Your task to perform on an android device: toggle notifications settings in the gmail app Image 0: 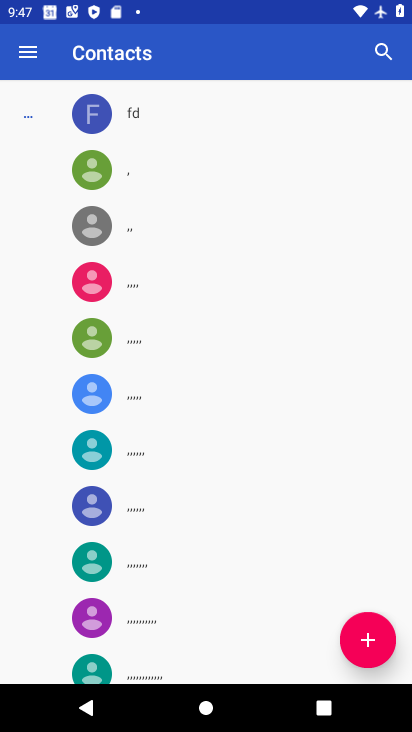
Step 0: press home button
Your task to perform on an android device: toggle notifications settings in the gmail app Image 1: 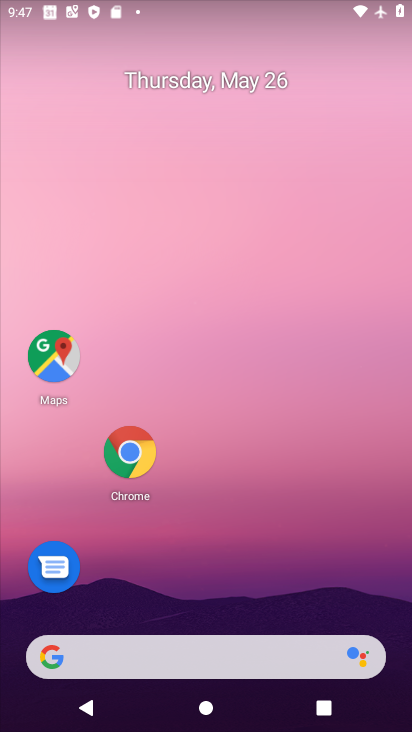
Step 1: drag from (231, 659) to (278, 101)
Your task to perform on an android device: toggle notifications settings in the gmail app Image 2: 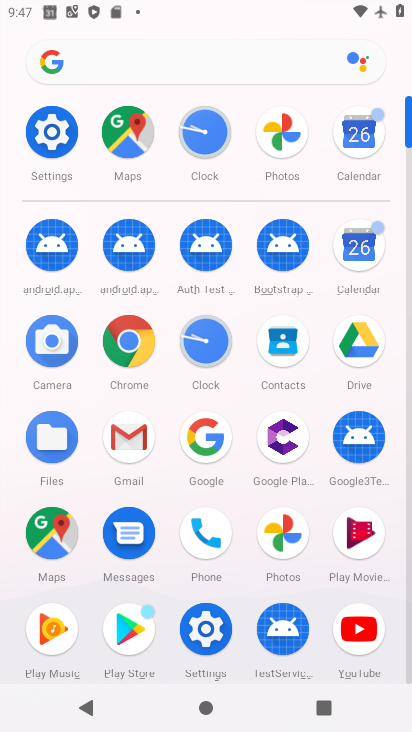
Step 2: click (136, 445)
Your task to perform on an android device: toggle notifications settings in the gmail app Image 3: 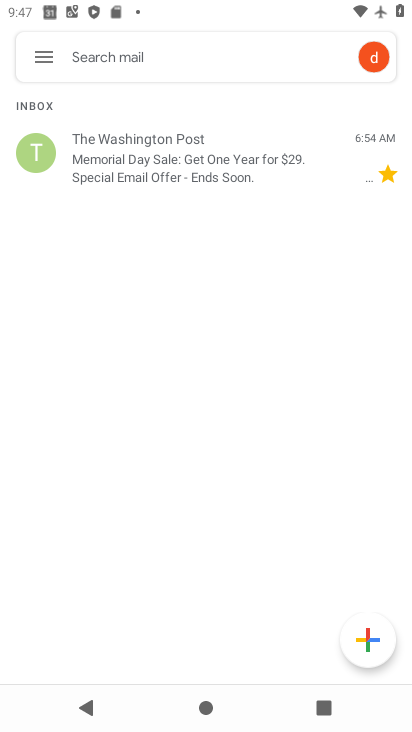
Step 3: click (43, 58)
Your task to perform on an android device: toggle notifications settings in the gmail app Image 4: 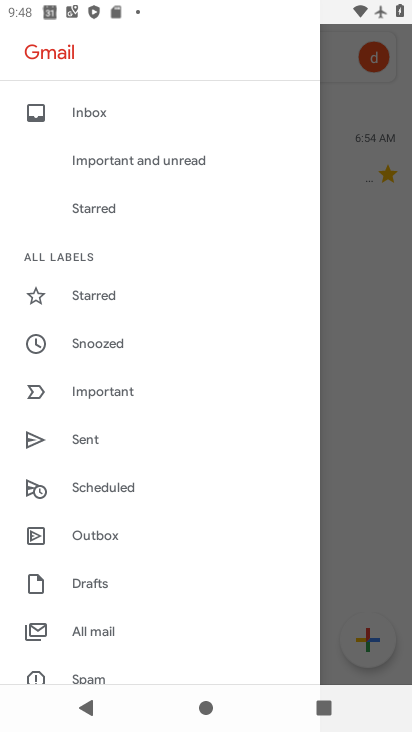
Step 4: drag from (172, 604) to (212, 155)
Your task to perform on an android device: toggle notifications settings in the gmail app Image 5: 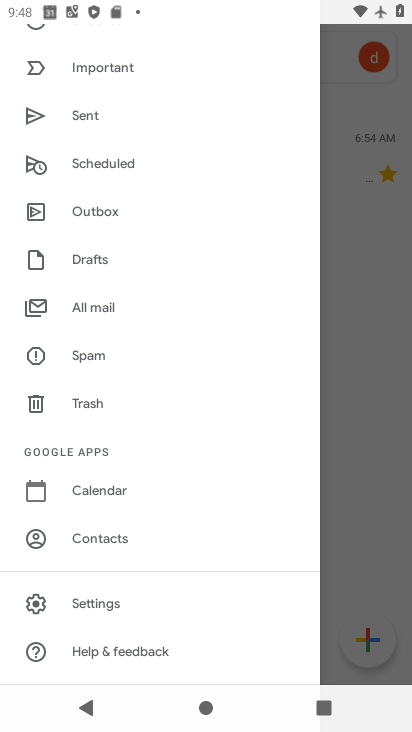
Step 5: click (99, 596)
Your task to perform on an android device: toggle notifications settings in the gmail app Image 6: 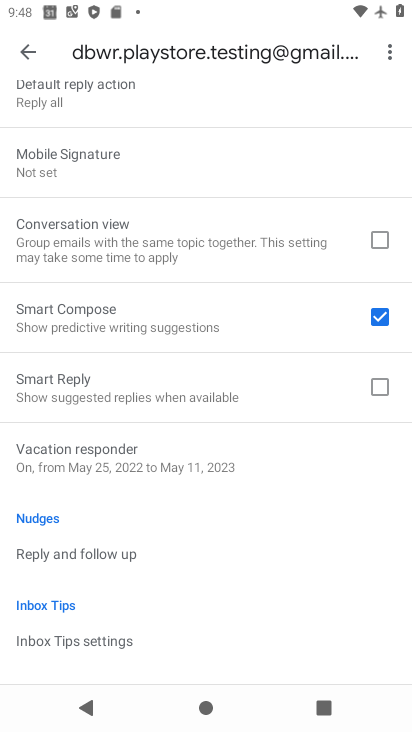
Step 6: drag from (212, 600) to (201, 633)
Your task to perform on an android device: toggle notifications settings in the gmail app Image 7: 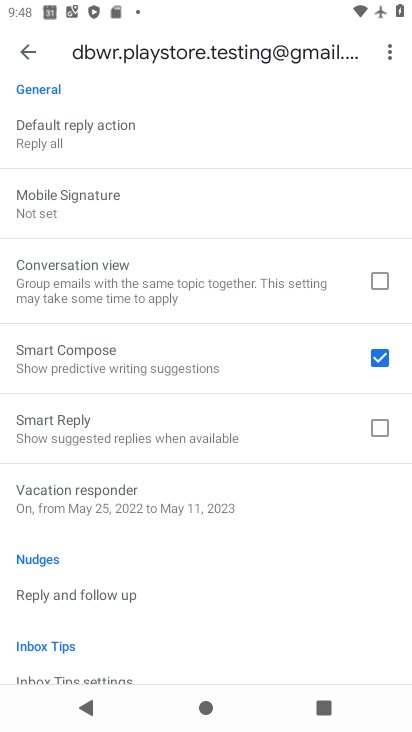
Step 7: drag from (237, 179) to (216, 504)
Your task to perform on an android device: toggle notifications settings in the gmail app Image 8: 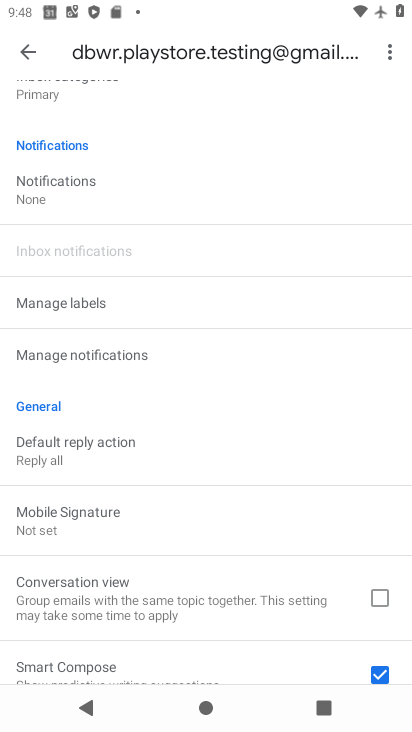
Step 8: click (44, 192)
Your task to perform on an android device: toggle notifications settings in the gmail app Image 9: 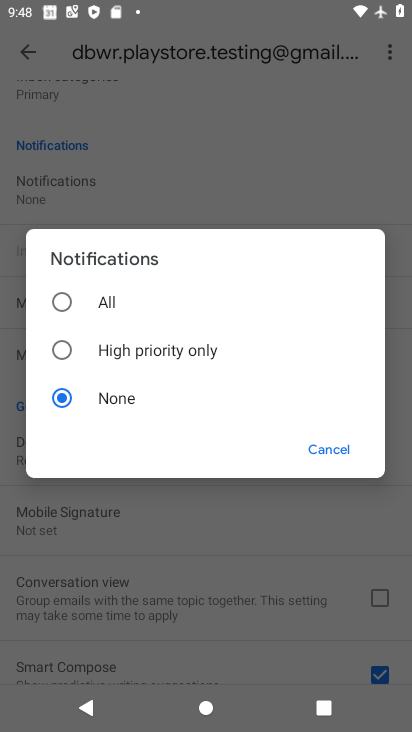
Step 9: click (64, 299)
Your task to perform on an android device: toggle notifications settings in the gmail app Image 10: 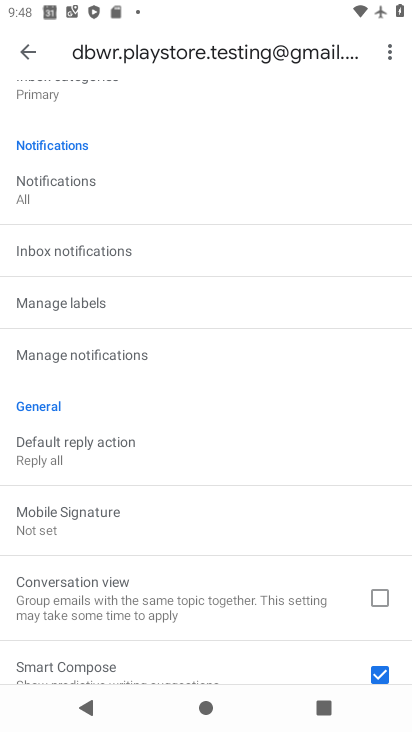
Step 10: task complete